Your task to perform on an android device: Turn off the flashlight Image 0: 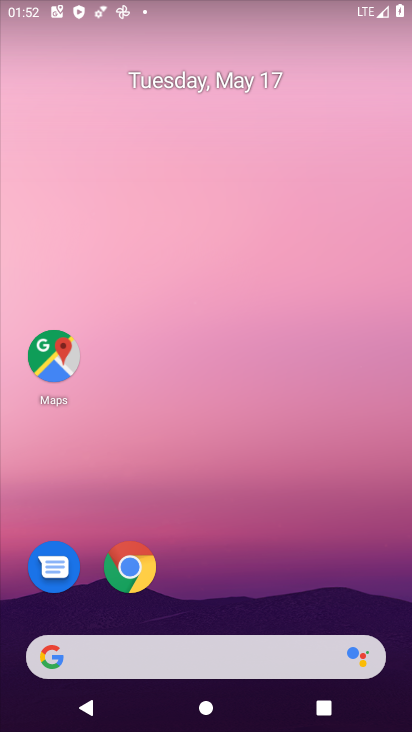
Step 0: drag from (399, 617) to (358, 93)
Your task to perform on an android device: Turn off the flashlight Image 1: 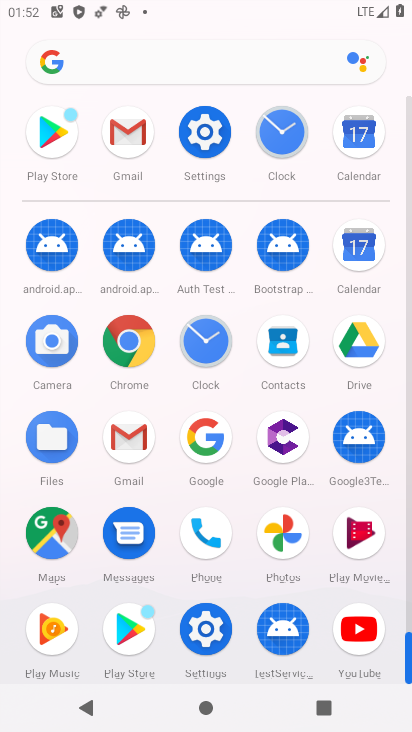
Step 1: press back button
Your task to perform on an android device: Turn off the flashlight Image 2: 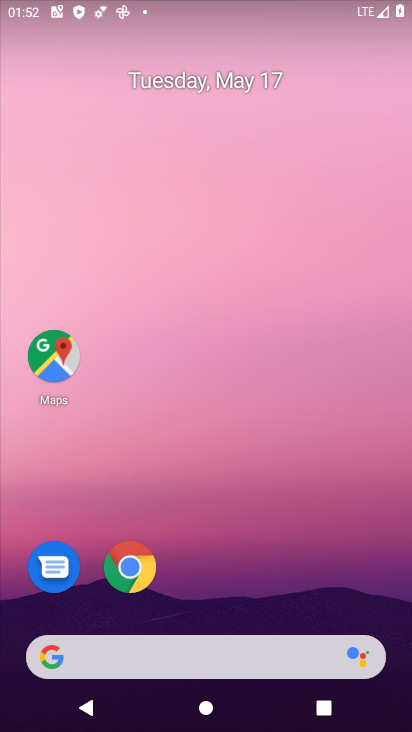
Step 2: drag from (270, 20) to (297, 448)
Your task to perform on an android device: Turn off the flashlight Image 3: 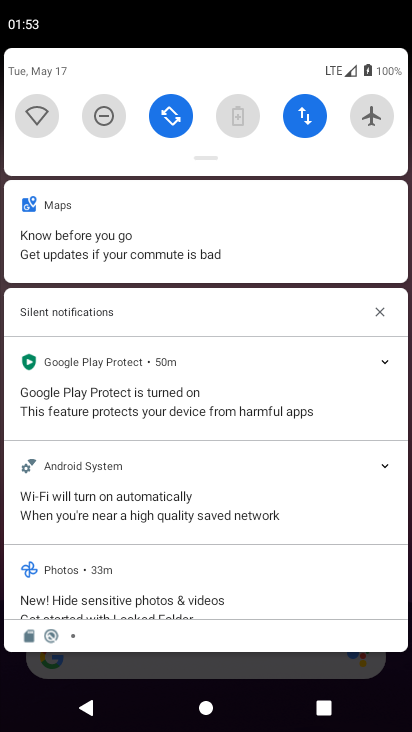
Step 3: drag from (202, 149) to (184, 430)
Your task to perform on an android device: Turn off the flashlight Image 4: 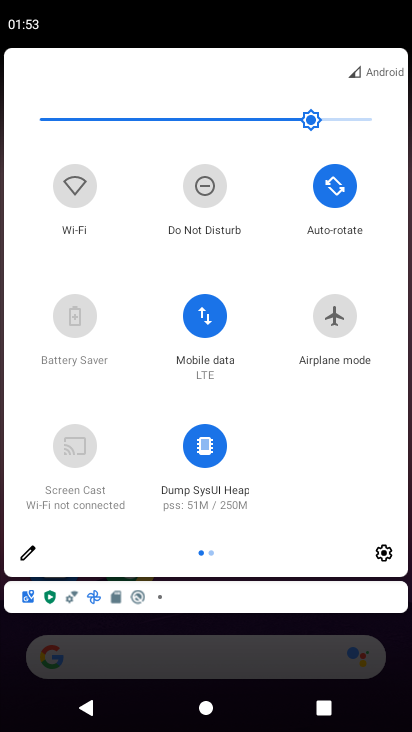
Step 4: click (25, 549)
Your task to perform on an android device: Turn off the flashlight Image 5: 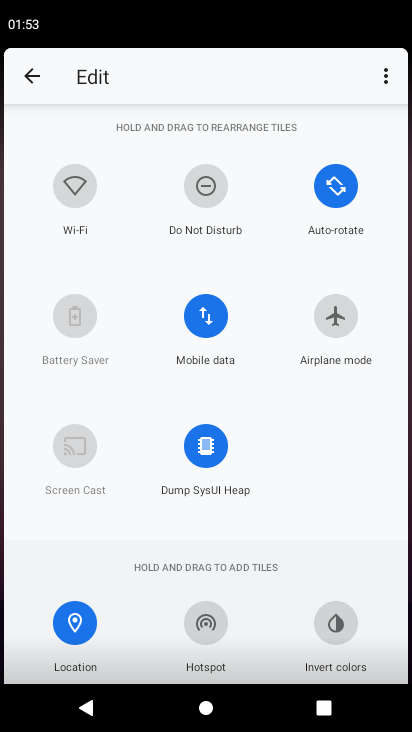
Step 5: task complete